Your task to perform on an android device: Open Google Maps and go to "Timeline" Image 0: 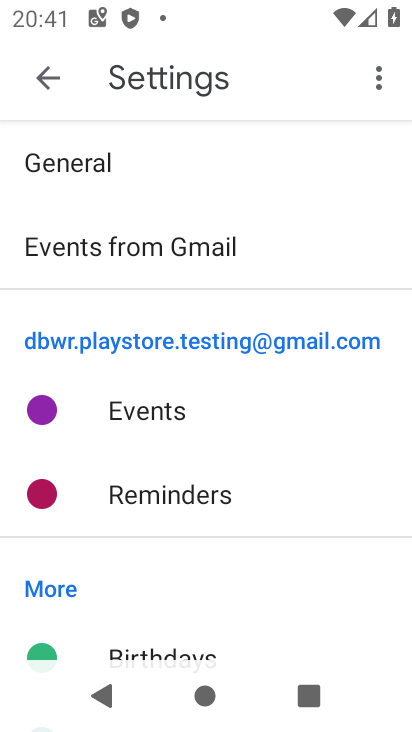
Step 0: press home button
Your task to perform on an android device: Open Google Maps and go to "Timeline" Image 1: 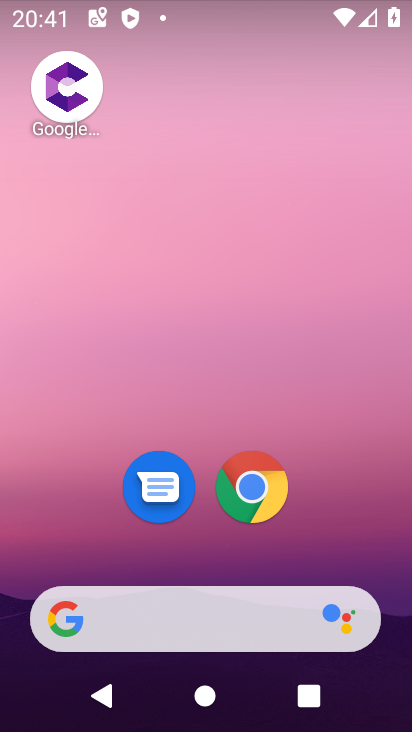
Step 1: drag from (327, 536) to (308, 73)
Your task to perform on an android device: Open Google Maps and go to "Timeline" Image 2: 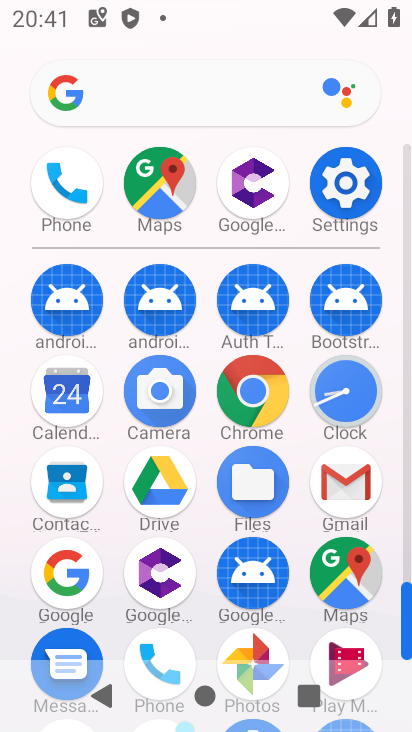
Step 2: click (343, 568)
Your task to perform on an android device: Open Google Maps and go to "Timeline" Image 3: 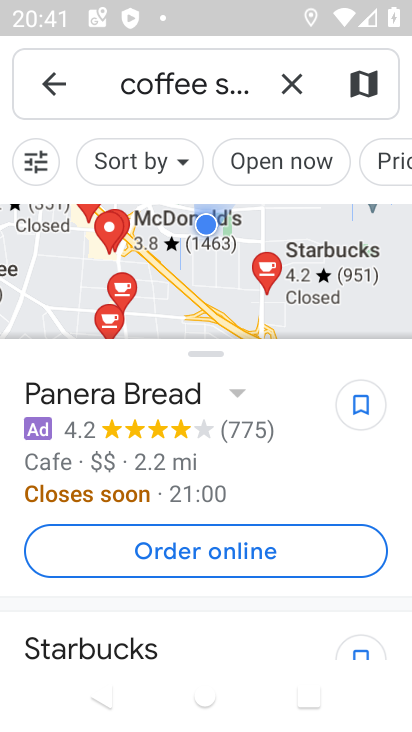
Step 3: click (288, 82)
Your task to perform on an android device: Open Google Maps and go to "Timeline" Image 4: 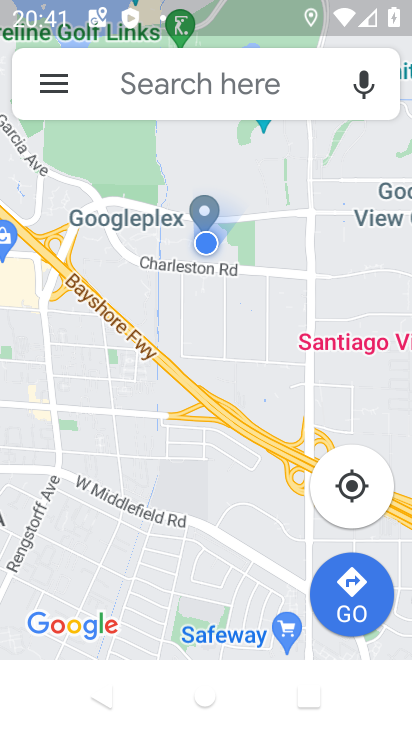
Step 4: click (60, 88)
Your task to perform on an android device: Open Google Maps and go to "Timeline" Image 5: 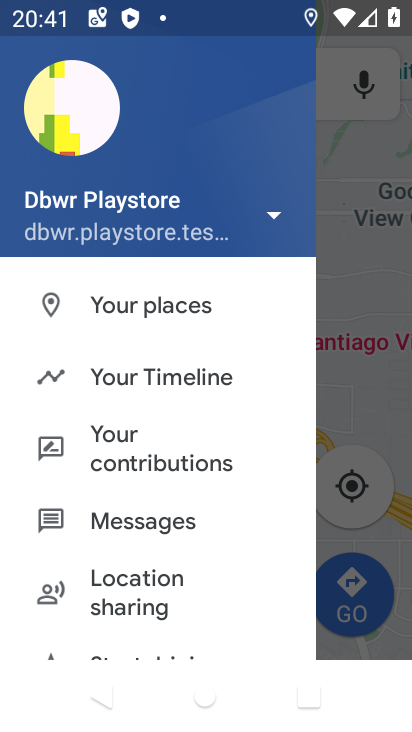
Step 5: click (146, 379)
Your task to perform on an android device: Open Google Maps and go to "Timeline" Image 6: 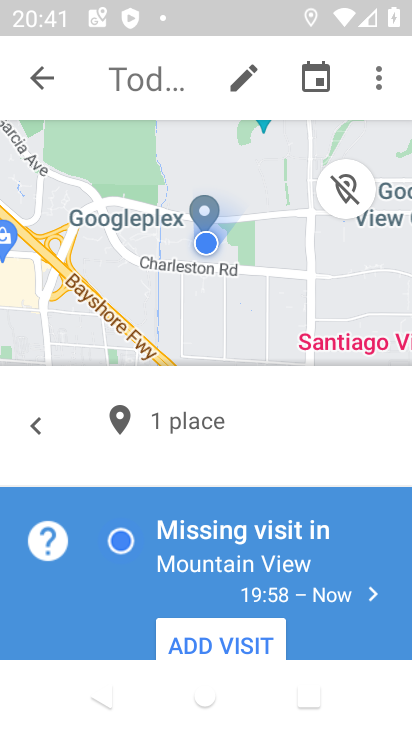
Step 6: task complete